Your task to perform on an android device: move a message to another label in the gmail app Image 0: 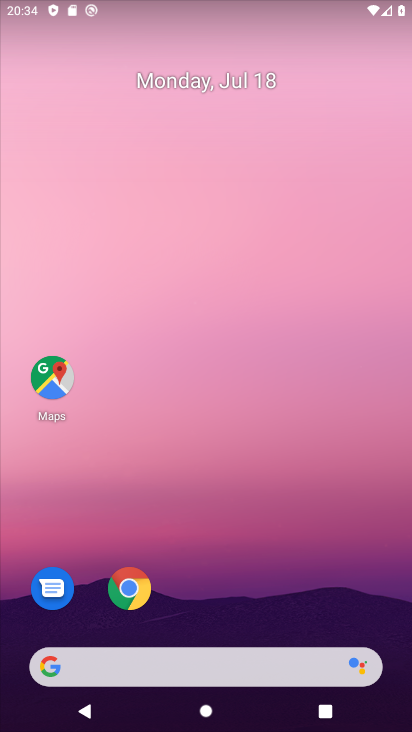
Step 0: press home button
Your task to perform on an android device: move a message to another label in the gmail app Image 1: 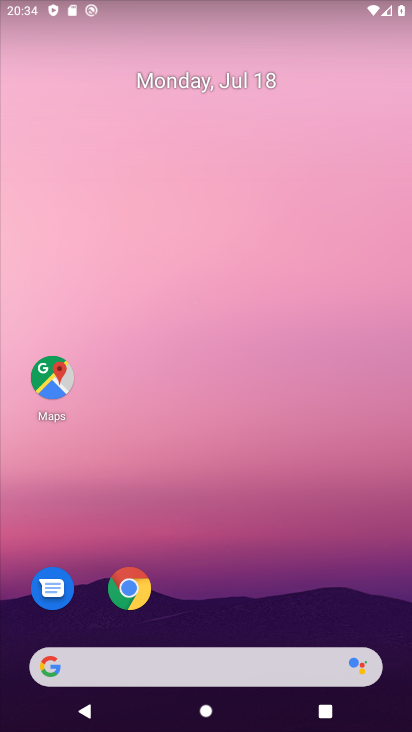
Step 1: drag from (262, 353) to (356, 33)
Your task to perform on an android device: move a message to another label in the gmail app Image 2: 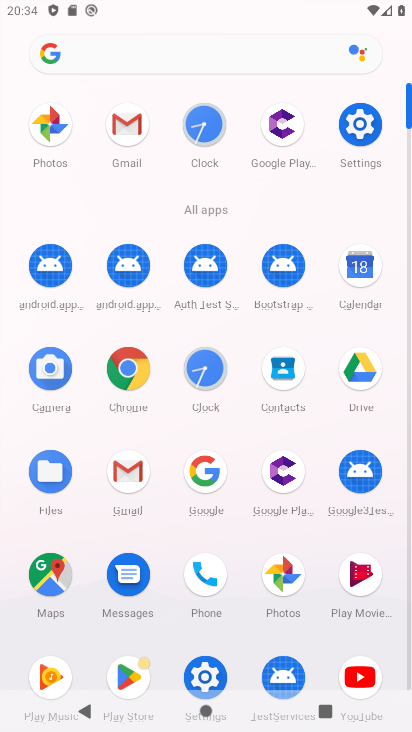
Step 2: click (131, 133)
Your task to perform on an android device: move a message to another label in the gmail app Image 3: 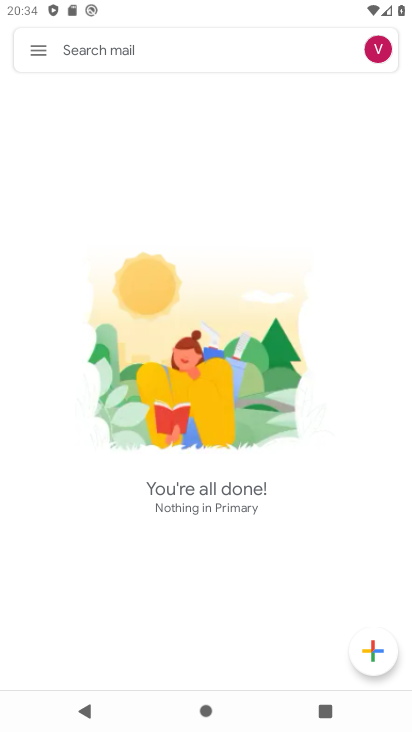
Step 3: task complete